Your task to perform on an android device: turn notification dots on Image 0: 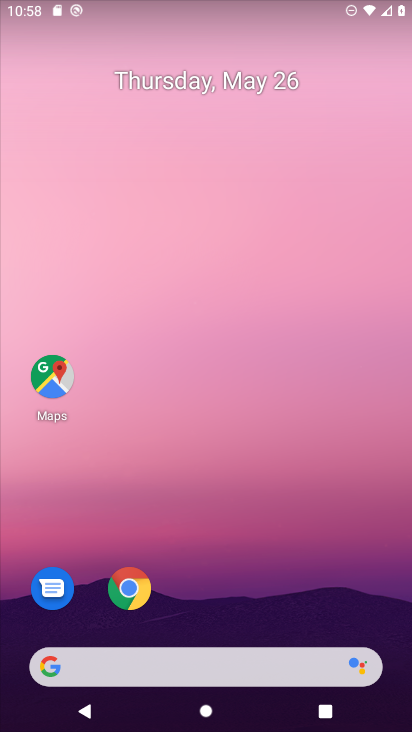
Step 0: drag from (366, 607) to (318, 172)
Your task to perform on an android device: turn notification dots on Image 1: 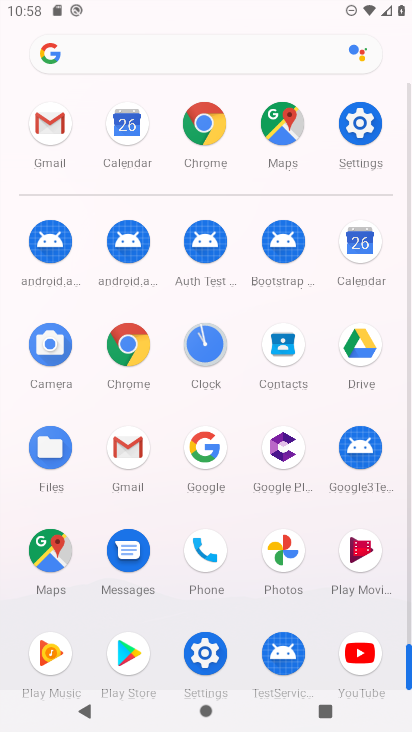
Step 1: click (202, 653)
Your task to perform on an android device: turn notification dots on Image 2: 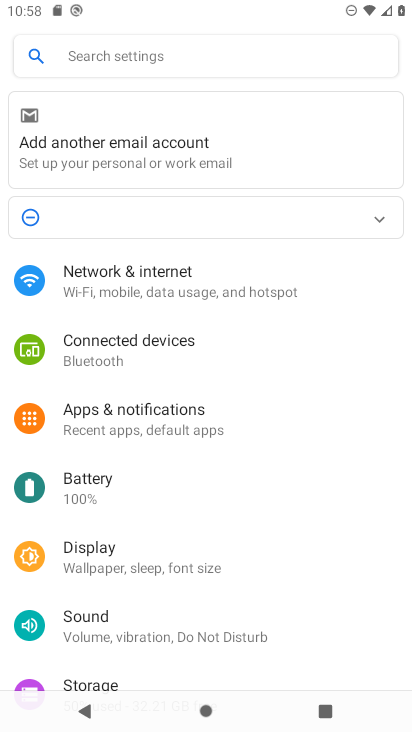
Step 2: click (121, 409)
Your task to perform on an android device: turn notification dots on Image 3: 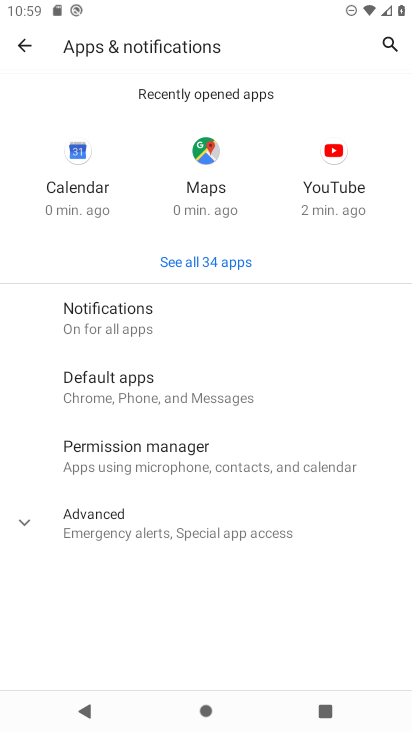
Step 3: click (111, 310)
Your task to perform on an android device: turn notification dots on Image 4: 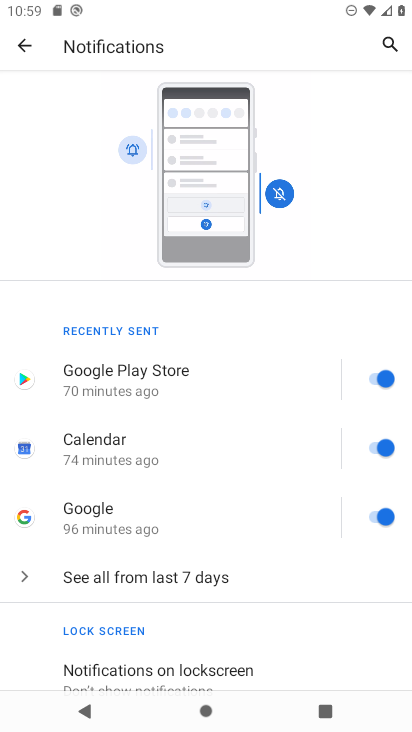
Step 4: drag from (284, 665) to (248, 257)
Your task to perform on an android device: turn notification dots on Image 5: 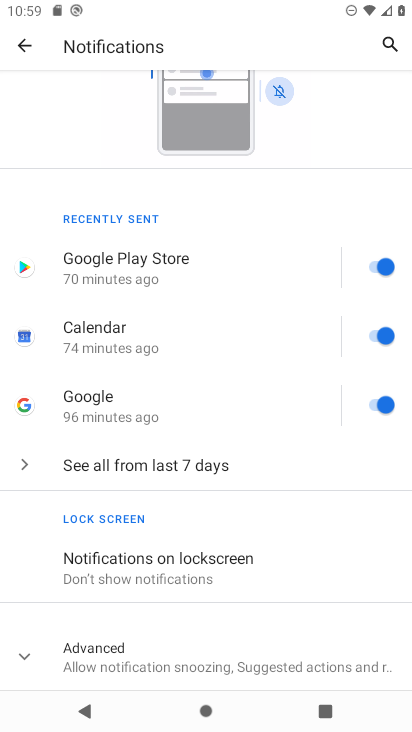
Step 5: click (31, 648)
Your task to perform on an android device: turn notification dots on Image 6: 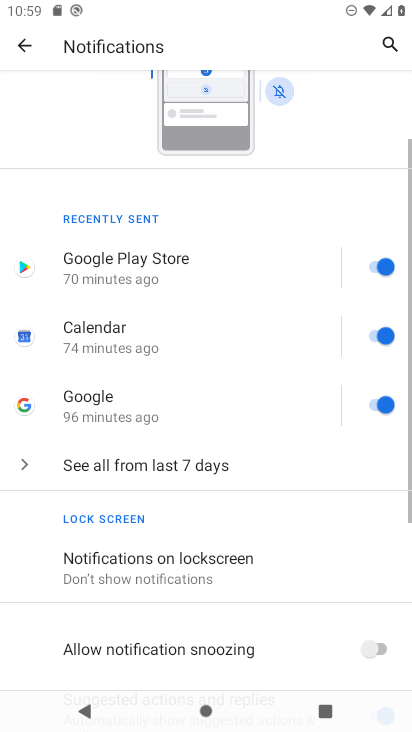
Step 6: drag from (323, 632) to (272, 299)
Your task to perform on an android device: turn notification dots on Image 7: 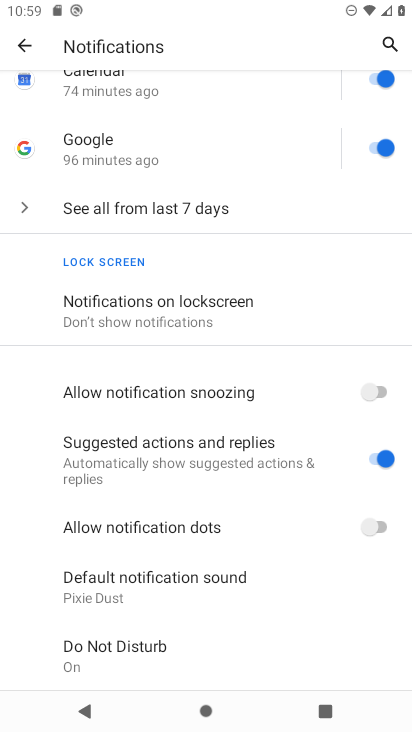
Step 7: click (379, 528)
Your task to perform on an android device: turn notification dots on Image 8: 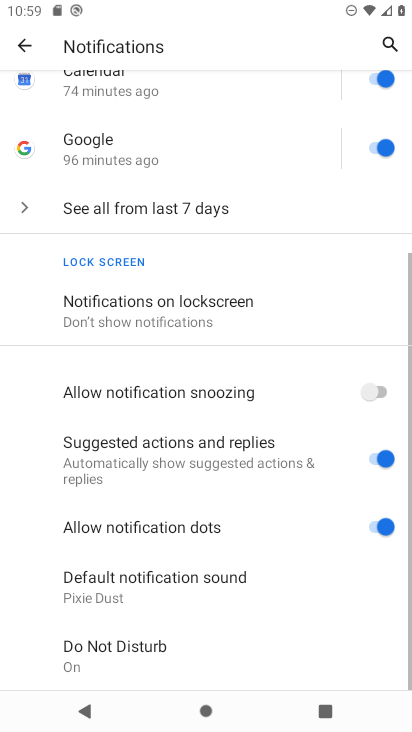
Step 8: task complete